Your task to perform on an android device: toggle javascript in the chrome app Image 0: 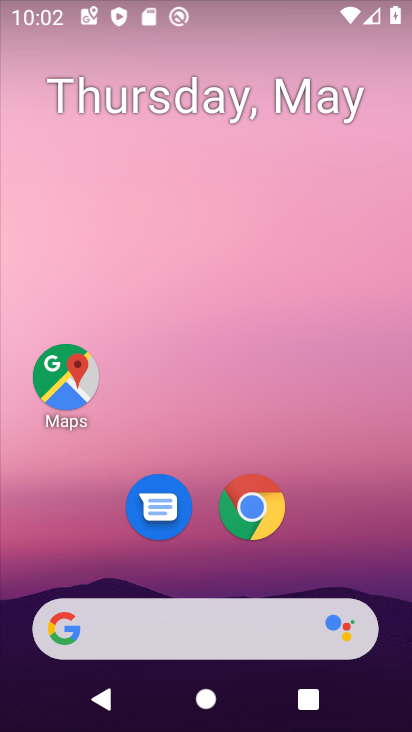
Step 0: click (266, 528)
Your task to perform on an android device: toggle javascript in the chrome app Image 1: 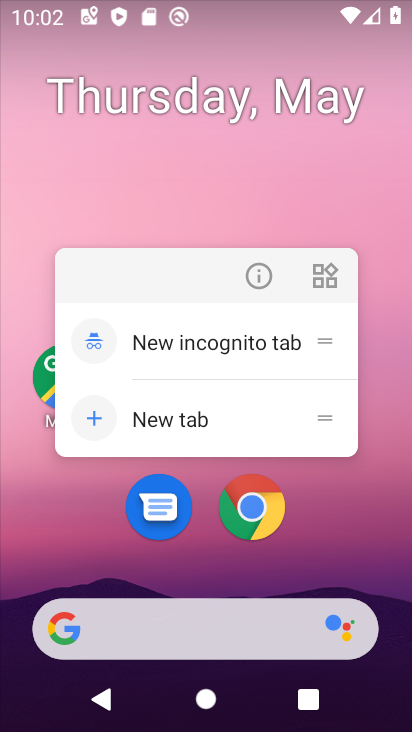
Step 1: click (272, 525)
Your task to perform on an android device: toggle javascript in the chrome app Image 2: 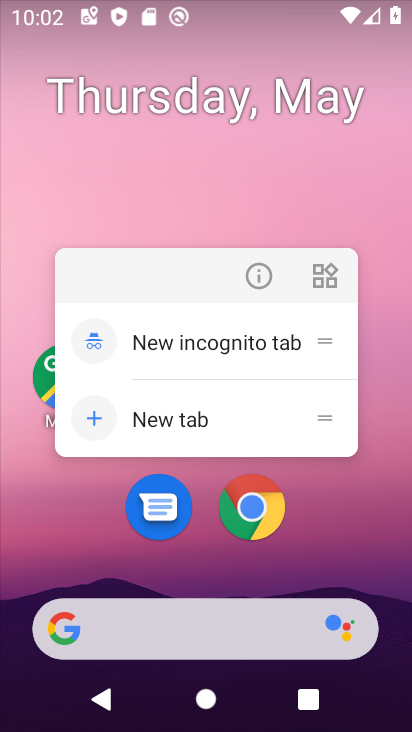
Step 2: click (251, 533)
Your task to perform on an android device: toggle javascript in the chrome app Image 3: 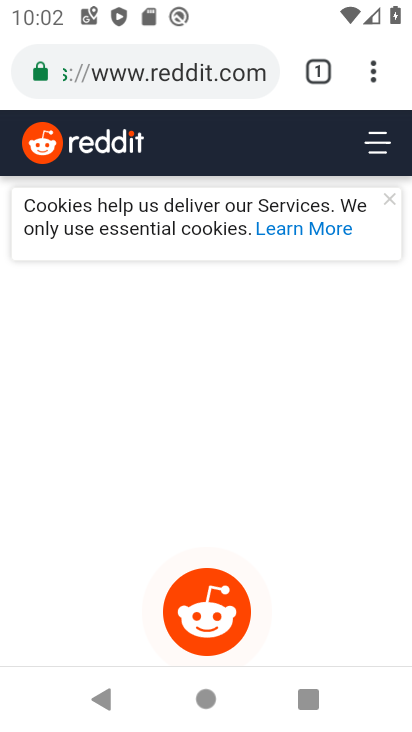
Step 3: click (379, 87)
Your task to perform on an android device: toggle javascript in the chrome app Image 4: 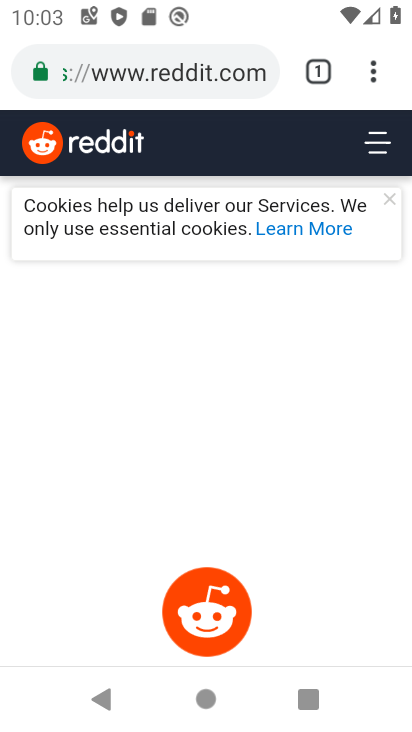
Step 4: click (378, 75)
Your task to perform on an android device: toggle javascript in the chrome app Image 5: 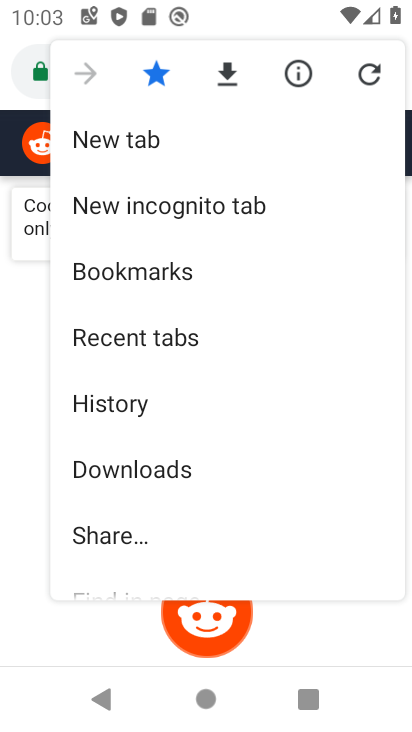
Step 5: drag from (332, 390) to (264, 232)
Your task to perform on an android device: toggle javascript in the chrome app Image 6: 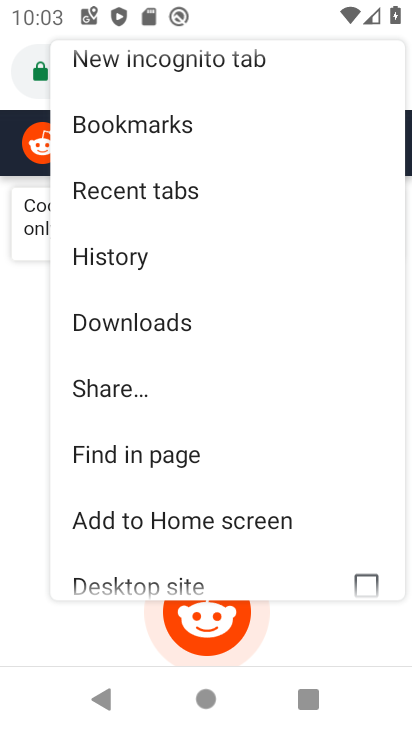
Step 6: drag from (203, 443) to (348, 40)
Your task to perform on an android device: toggle javascript in the chrome app Image 7: 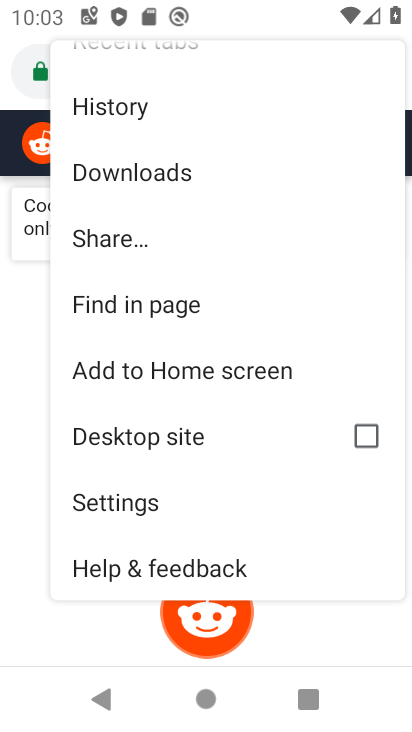
Step 7: click (166, 495)
Your task to perform on an android device: toggle javascript in the chrome app Image 8: 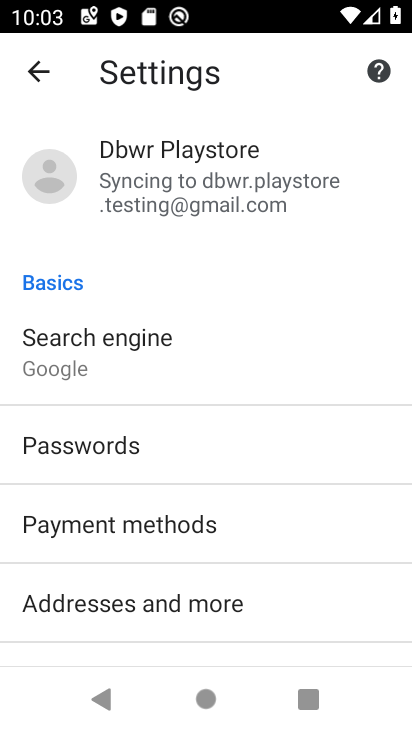
Step 8: drag from (162, 542) to (293, 197)
Your task to perform on an android device: toggle javascript in the chrome app Image 9: 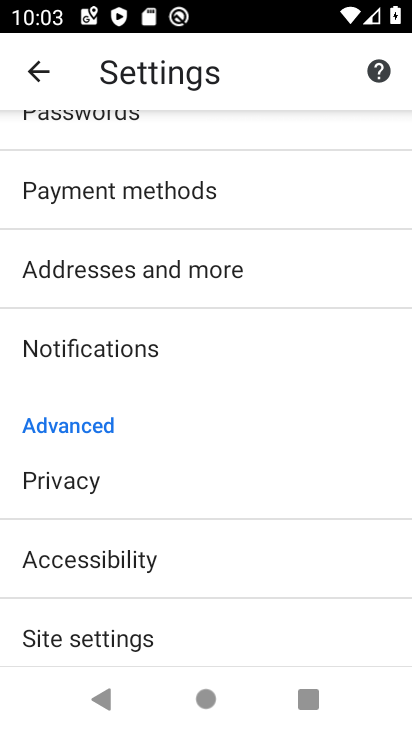
Step 9: click (166, 639)
Your task to perform on an android device: toggle javascript in the chrome app Image 10: 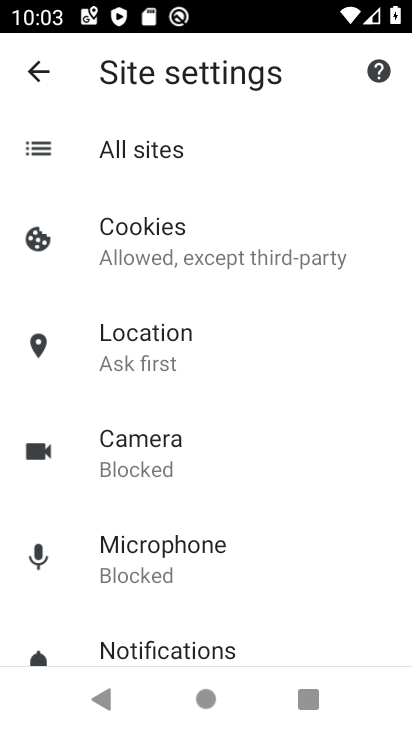
Step 10: drag from (195, 521) to (278, 140)
Your task to perform on an android device: toggle javascript in the chrome app Image 11: 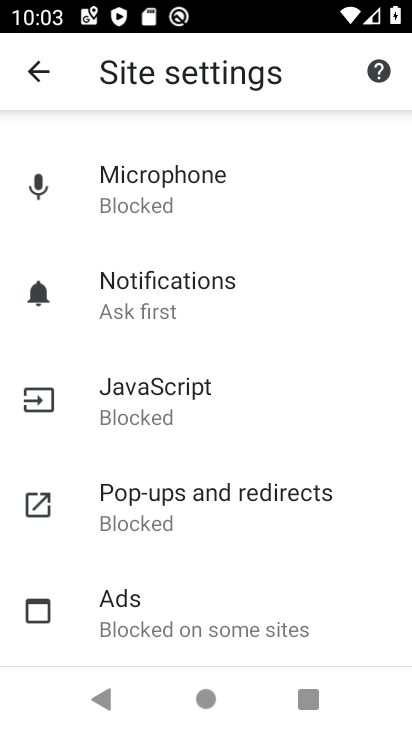
Step 11: click (225, 375)
Your task to perform on an android device: toggle javascript in the chrome app Image 12: 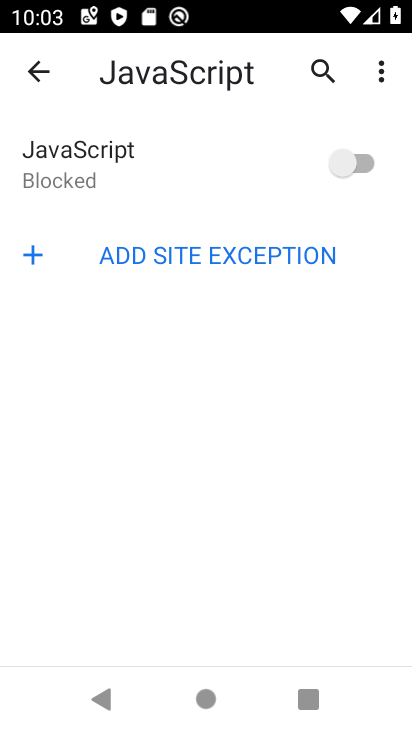
Step 12: click (370, 172)
Your task to perform on an android device: toggle javascript in the chrome app Image 13: 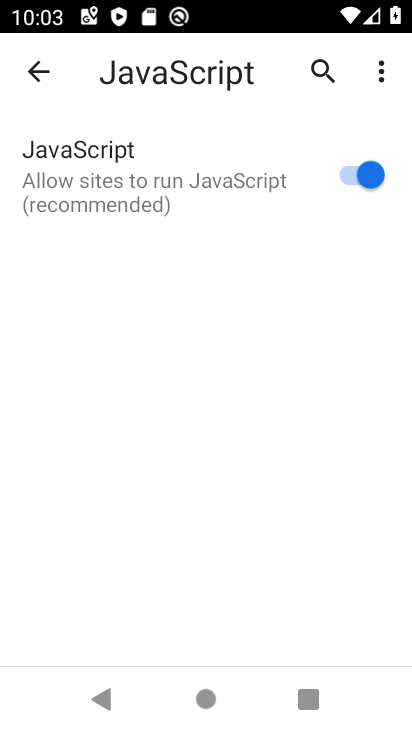
Step 13: task complete